Your task to perform on an android device: uninstall "DoorDash - Food Delivery" Image 0: 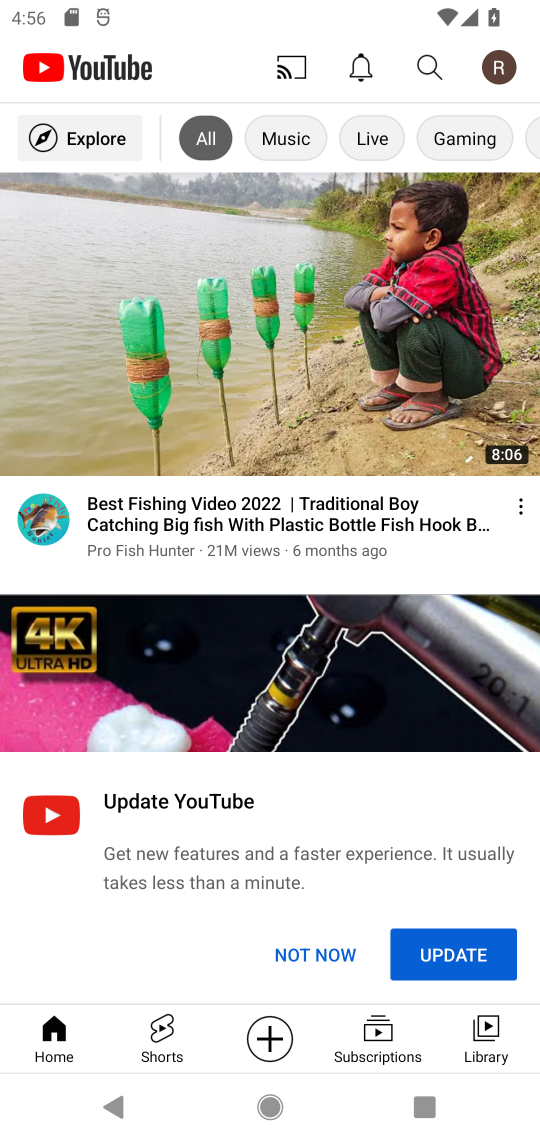
Step 0: press home button
Your task to perform on an android device: uninstall "DoorDash - Food Delivery" Image 1: 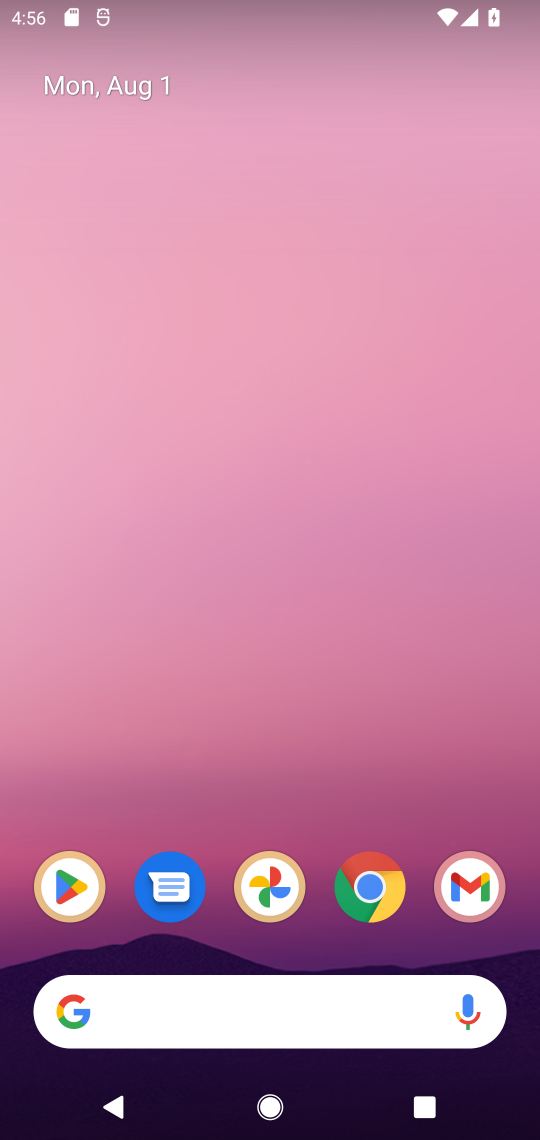
Step 1: drag from (254, 966) to (243, 115)
Your task to perform on an android device: uninstall "DoorDash - Food Delivery" Image 2: 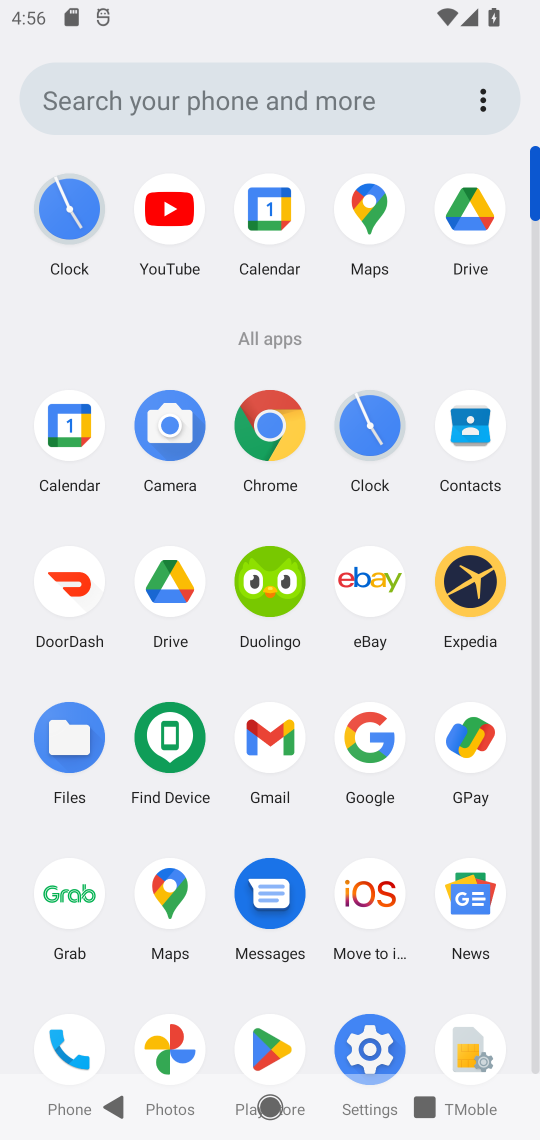
Step 2: click (252, 1027)
Your task to perform on an android device: uninstall "DoorDash - Food Delivery" Image 3: 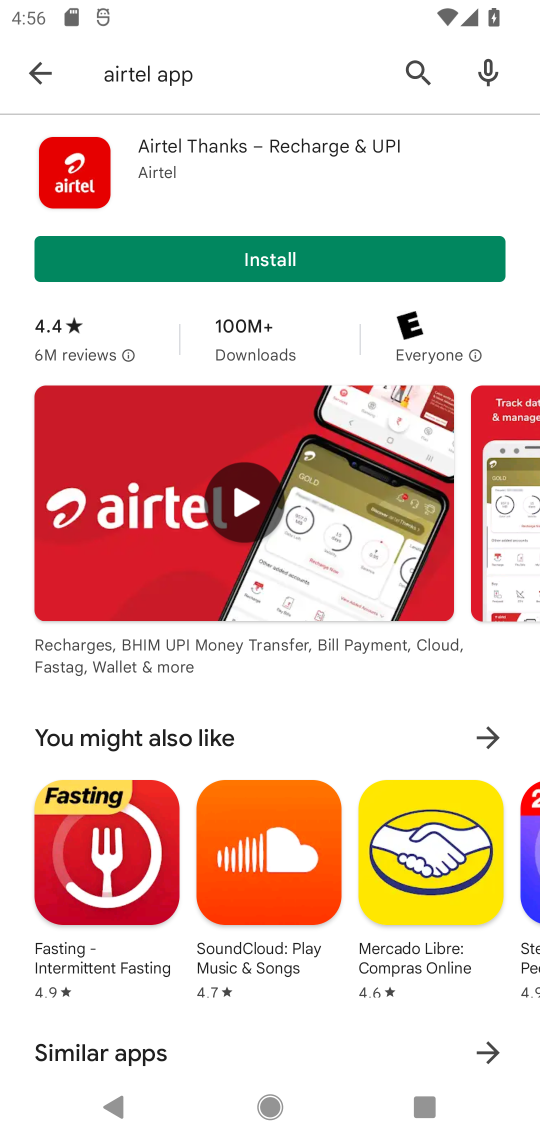
Step 3: click (31, 64)
Your task to perform on an android device: uninstall "DoorDash - Food Delivery" Image 4: 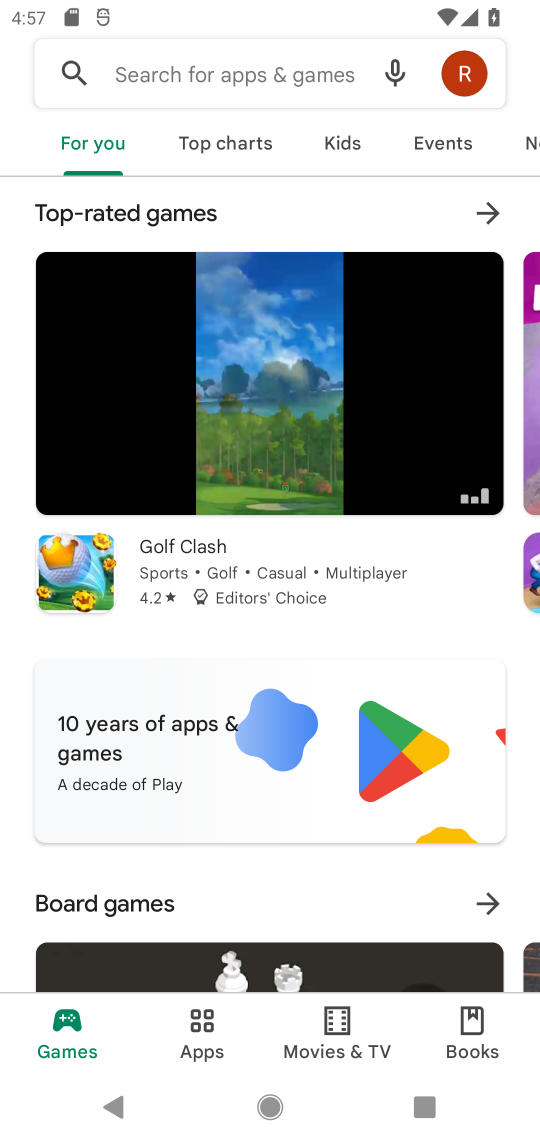
Step 4: click (187, 83)
Your task to perform on an android device: uninstall "DoorDash - Food Delivery" Image 5: 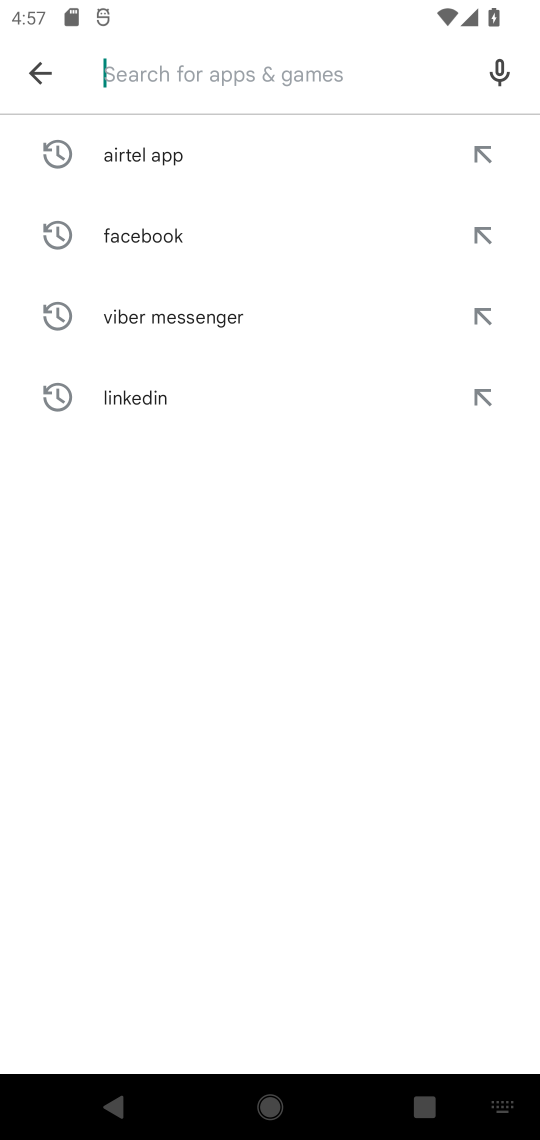
Step 5: type "DoorDash"
Your task to perform on an android device: uninstall "DoorDash - Food Delivery" Image 6: 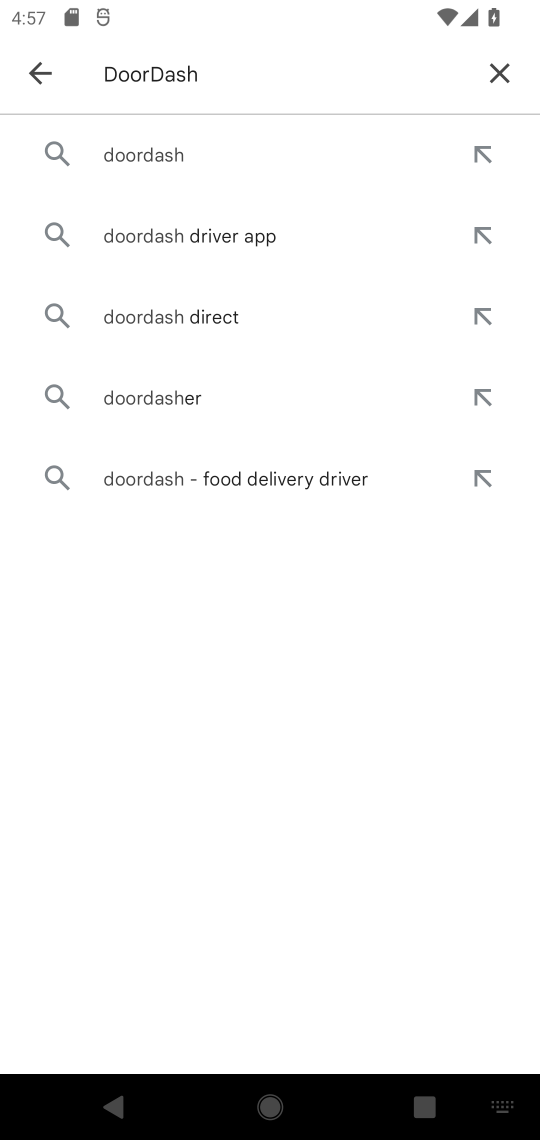
Step 6: click (125, 157)
Your task to perform on an android device: uninstall "DoorDash - Food Delivery" Image 7: 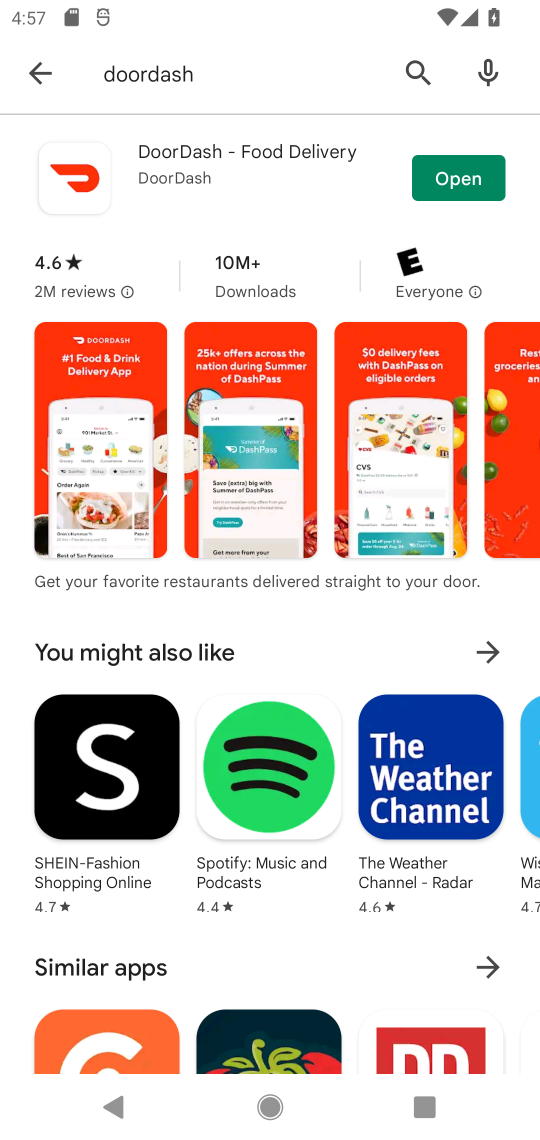
Step 7: click (253, 139)
Your task to perform on an android device: uninstall "DoorDash - Food Delivery" Image 8: 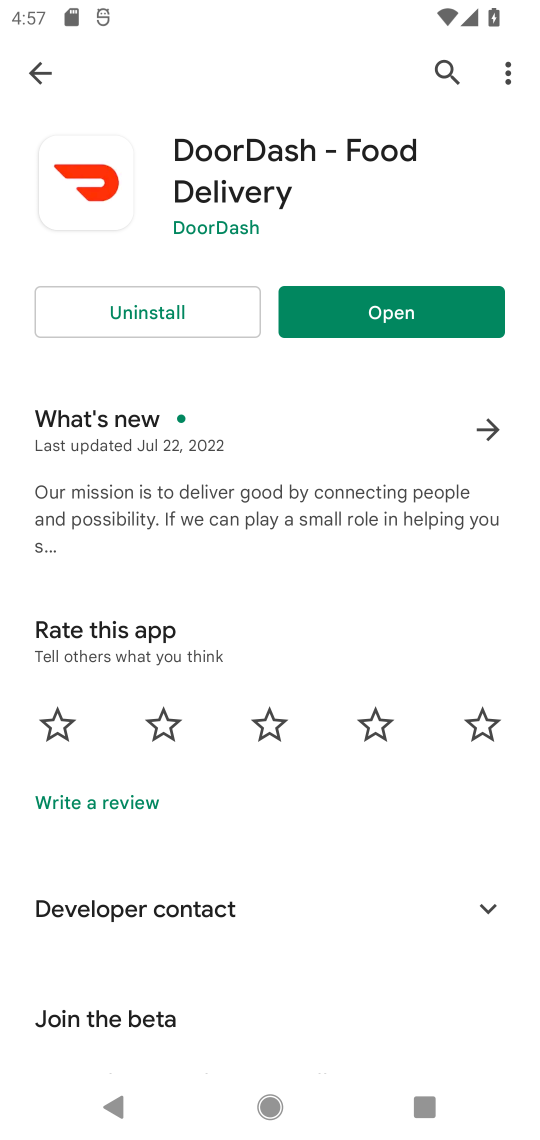
Step 8: click (166, 302)
Your task to perform on an android device: uninstall "DoorDash - Food Delivery" Image 9: 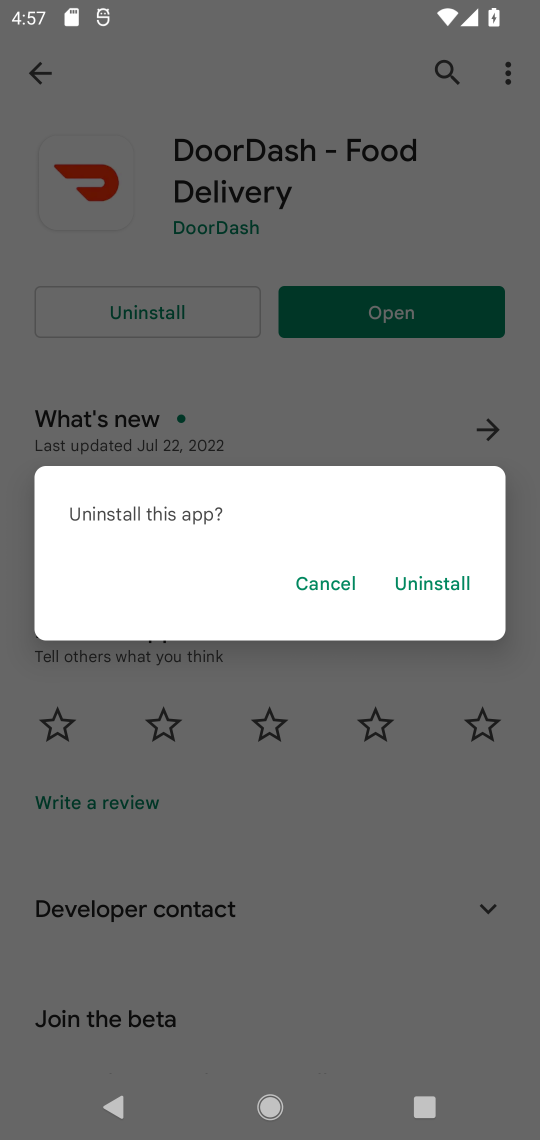
Step 9: click (426, 592)
Your task to perform on an android device: uninstall "DoorDash - Food Delivery" Image 10: 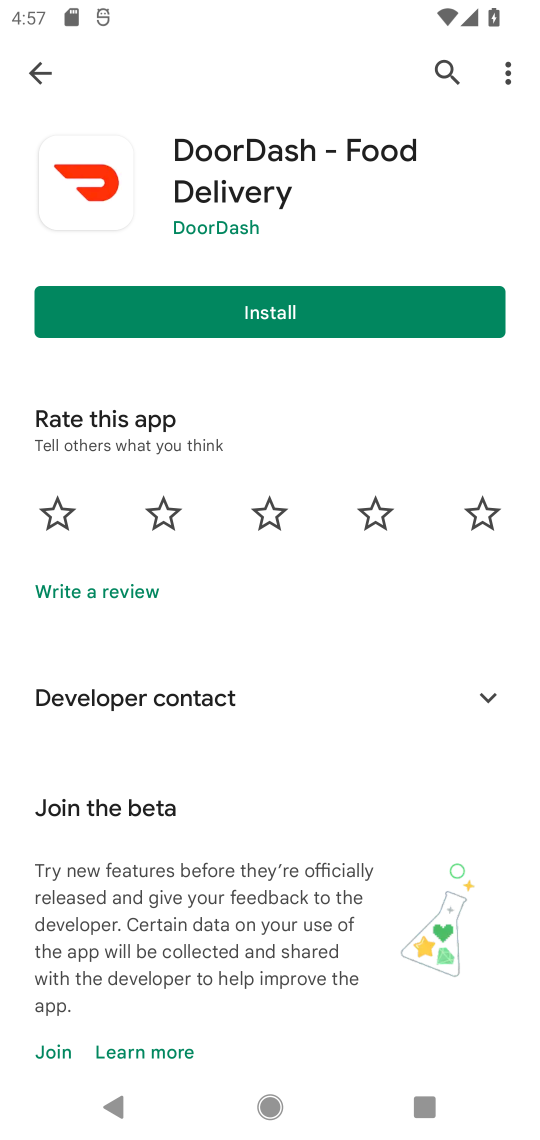
Step 10: task complete